Your task to perform on an android device: turn pop-ups off in chrome Image 0: 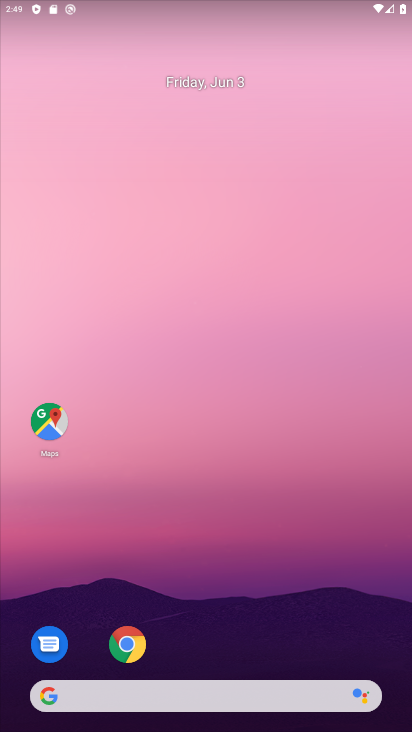
Step 0: drag from (317, 605) to (201, 20)
Your task to perform on an android device: turn pop-ups off in chrome Image 1: 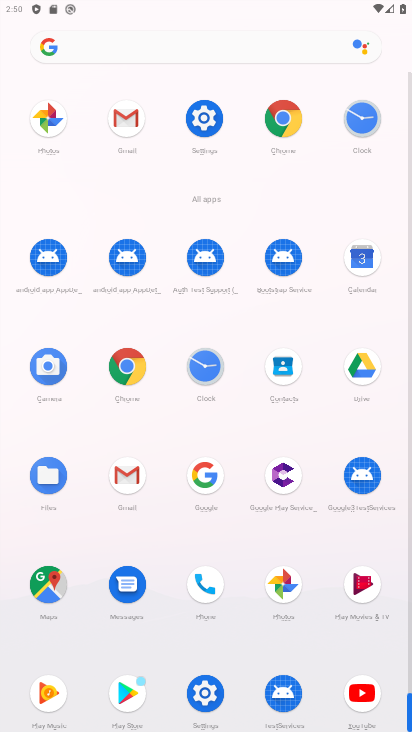
Step 1: click (138, 369)
Your task to perform on an android device: turn pop-ups off in chrome Image 2: 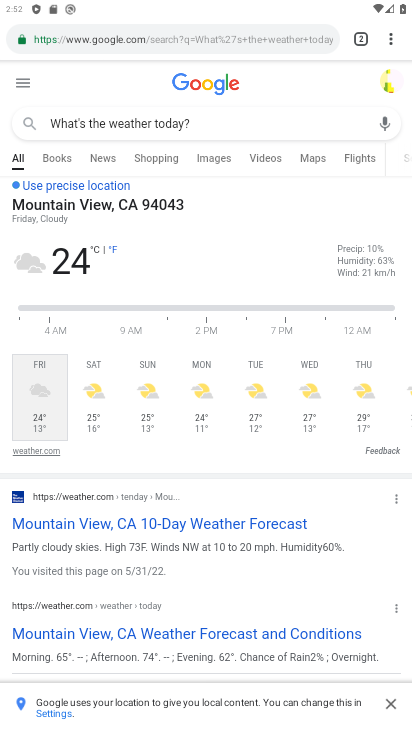
Step 2: drag from (395, 33) to (265, 436)
Your task to perform on an android device: turn pop-ups off in chrome Image 3: 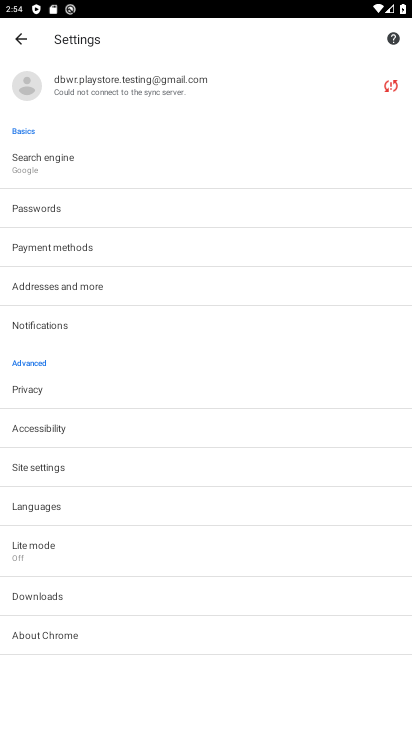
Step 3: click (32, 462)
Your task to perform on an android device: turn pop-ups off in chrome Image 4: 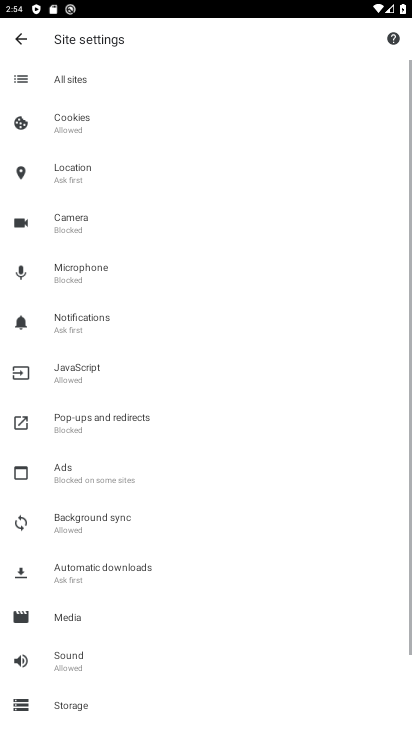
Step 4: drag from (191, 611) to (198, 469)
Your task to perform on an android device: turn pop-ups off in chrome Image 5: 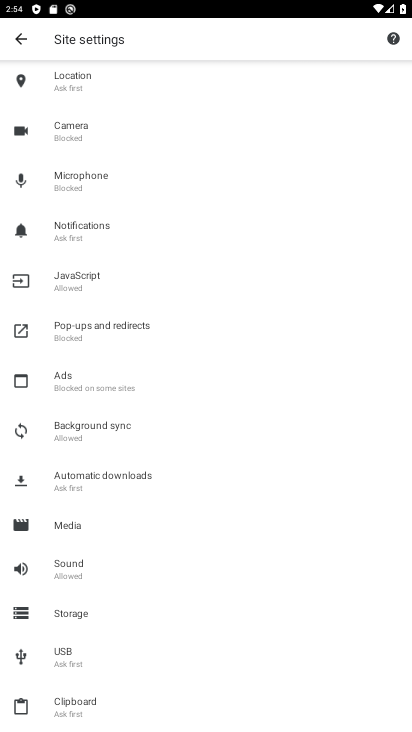
Step 5: click (131, 336)
Your task to perform on an android device: turn pop-ups off in chrome Image 6: 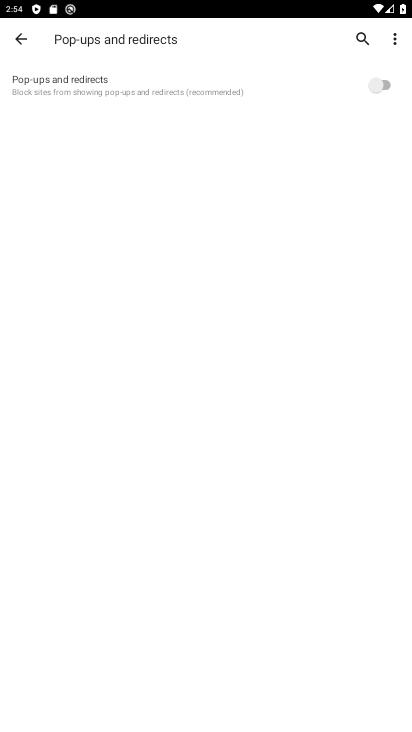
Step 6: click (254, 88)
Your task to perform on an android device: turn pop-ups off in chrome Image 7: 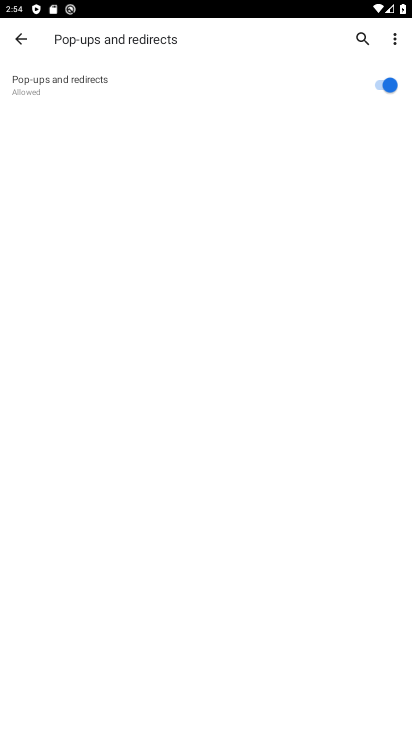
Step 7: click (344, 82)
Your task to perform on an android device: turn pop-ups off in chrome Image 8: 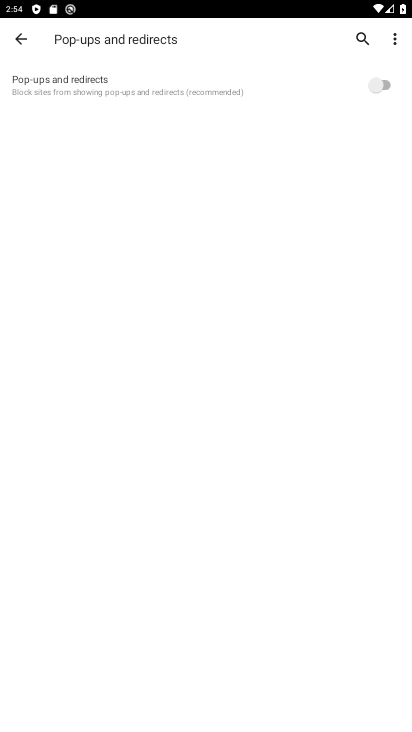
Step 8: task complete